Your task to perform on an android device: open device folders in google photos Image 0: 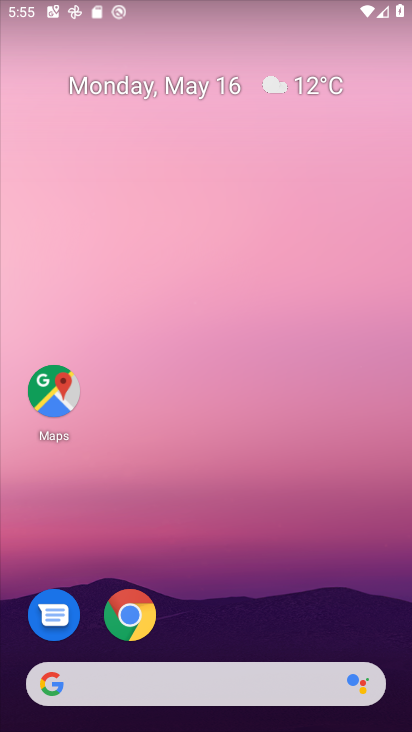
Step 0: drag from (198, 631) to (263, 130)
Your task to perform on an android device: open device folders in google photos Image 1: 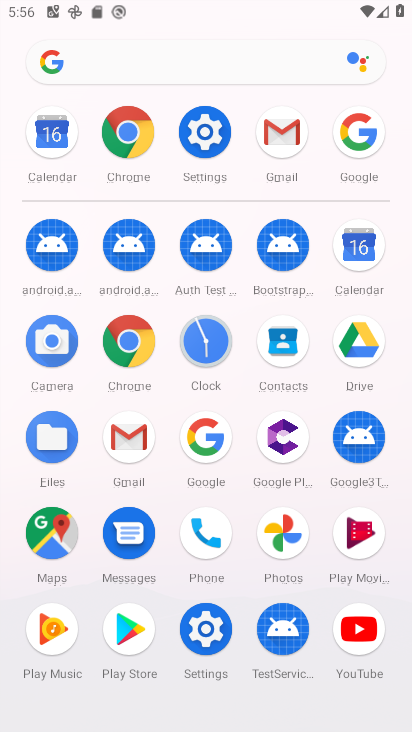
Step 1: click (280, 533)
Your task to perform on an android device: open device folders in google photos Image 2: 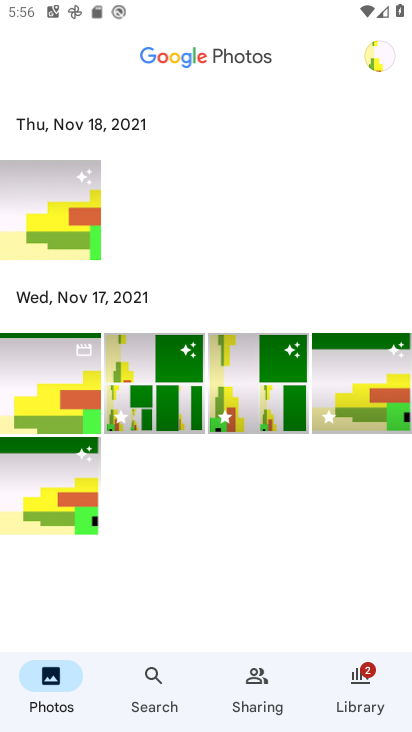
Step 2: click (145, 681)
Your task to perform on an android device: open device folders in google photos Image 3: 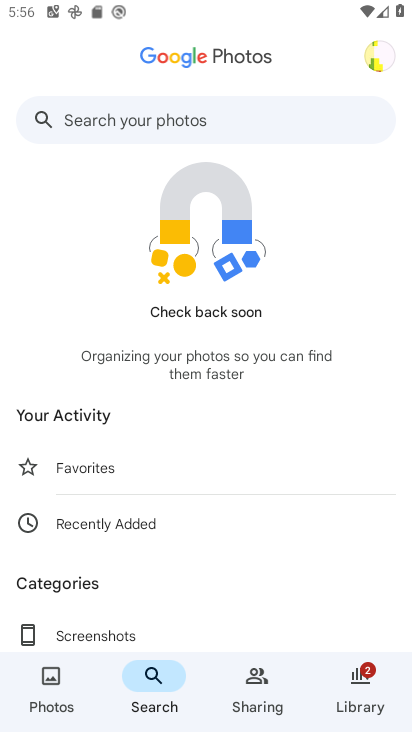
Step 3: drag from (107, 614) to (161, 305)
Your task to perform on an android device: open device folders in google photos Image 4: 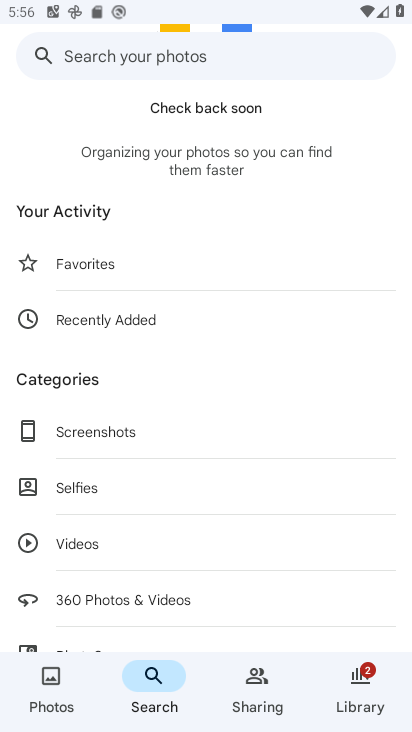
Step 4: drag from (123, 611) to (149, 313)
Your task to perform on an android device: open device folders in google photos Image 5: 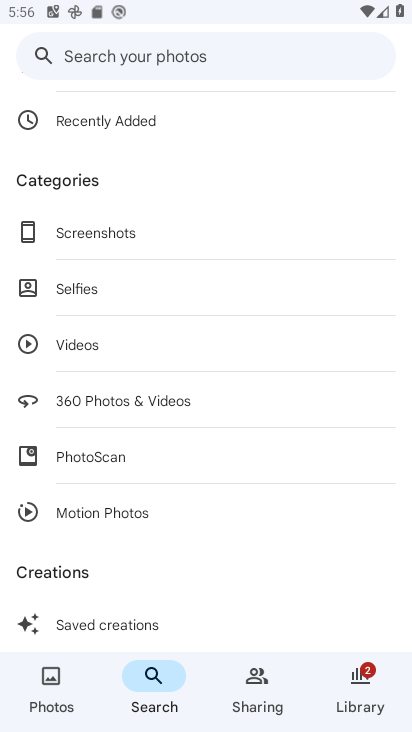
Step 5: drag from (108, 582) to (184, 280)
Your task to perform on an android device: open device folders in google photos Image 6: 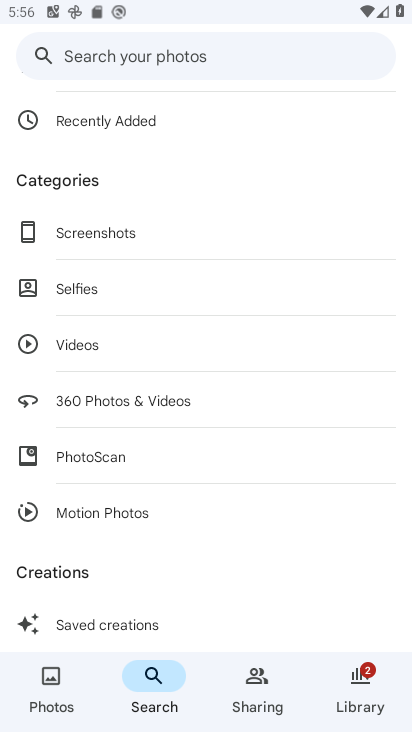
Step 6: click (258, 695)
Your task to perform on an android device: open device folders in google photos Image 7: 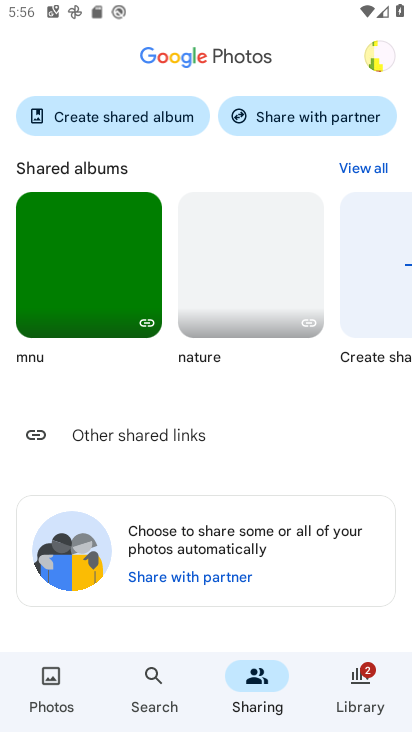
Step 7: drag from (269, 568) to (318, 196)
Your task to perform on an android device: open device folders in google photos Image 8: 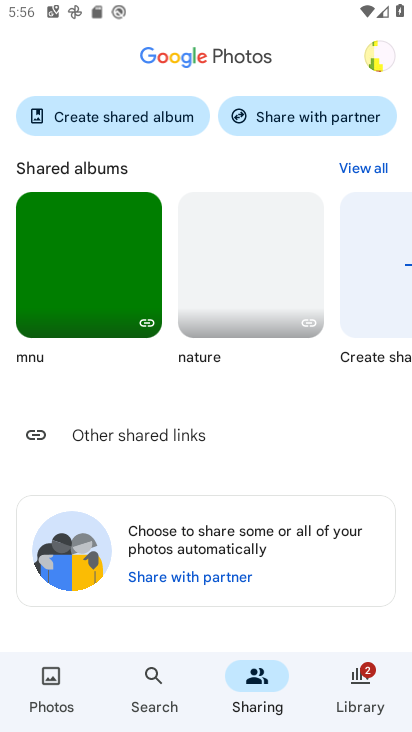
Step 8: drag from (248, 447) to (322, 115)
Your task to perform on an android device: open device folders in google photos Image 9: 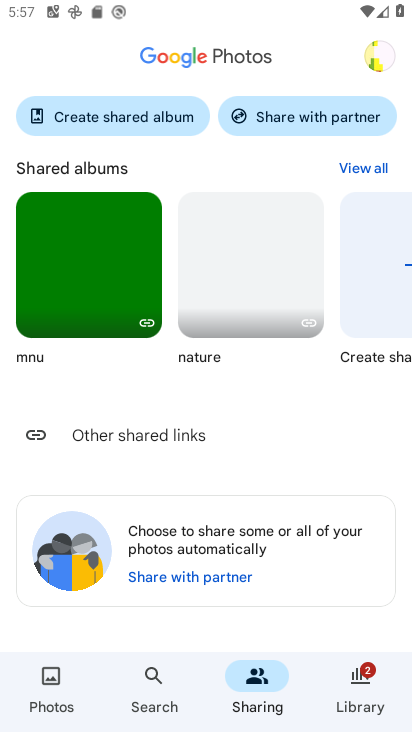
Step 9: click (358, 701)
Your task to perform on an android device: open device folders in google photos Image 10: 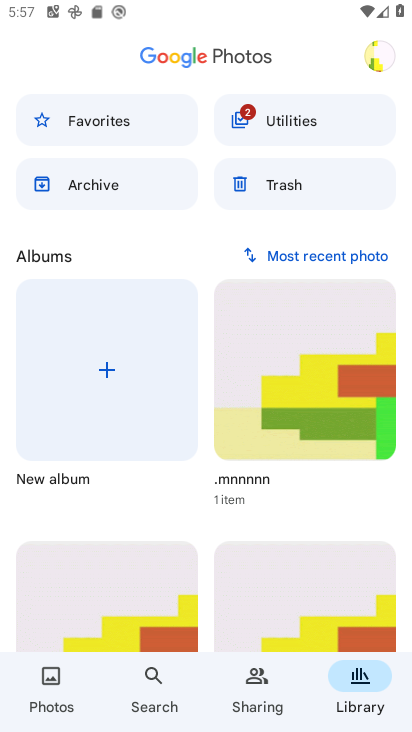
Step 10: drag from (243, 569) to (363, 96)
Your task to perform on an android device: open device folders in google photos Image 11: 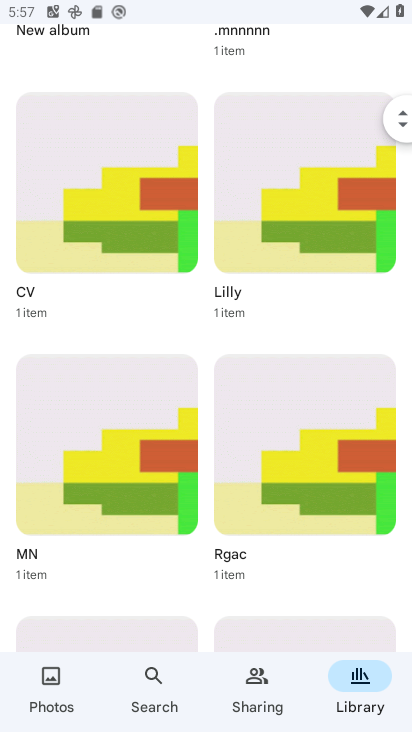
Step 11: drag from (281, 213) to (327, 52)
Your task to perform on an android device: open device folders in google photos Image 12: 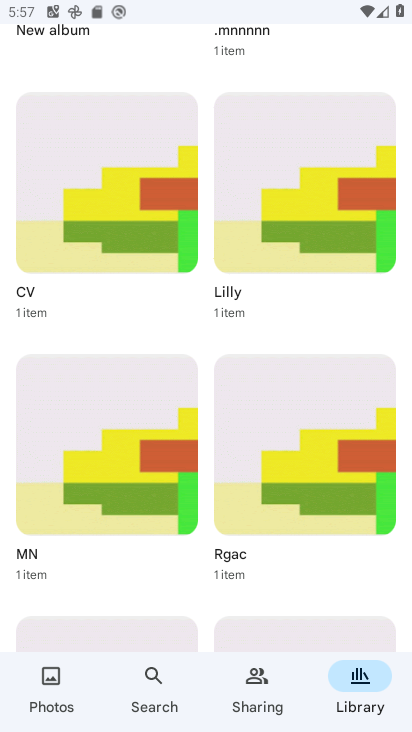
Step 12: drag from (217, 578) to (225, 264)
Your task to perform on an android device: open device folders in google photos Image 13: 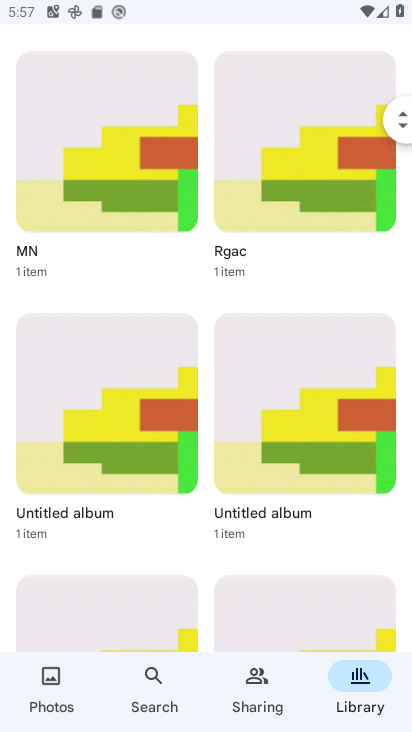
Step 13: click (39, 713)
Your task to perform on an android device: open device folders in google photos Image 14: 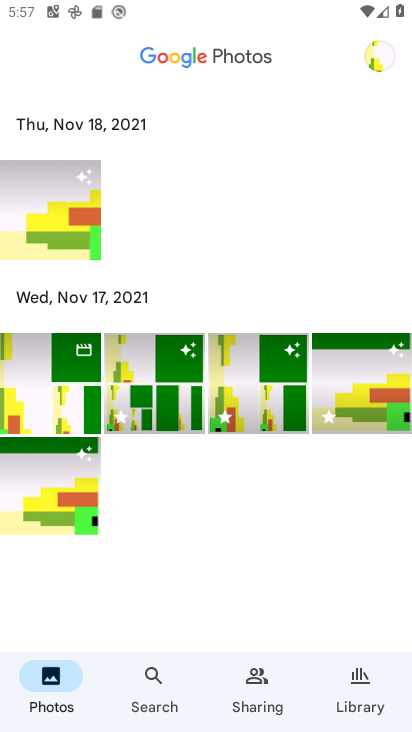
Step 14: task complete